Your task to perform on an android device: Open calendar and show me the fourth week of next month Image 0: 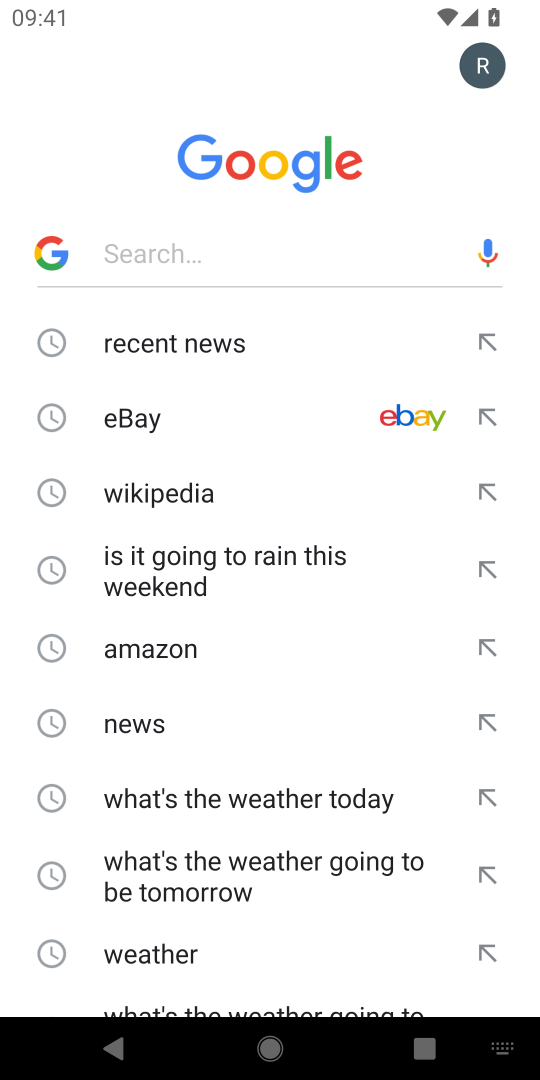
Step 0: press home button
Your task to perform on an android device: Open calendar and show me the fourth week of next month Image 1: 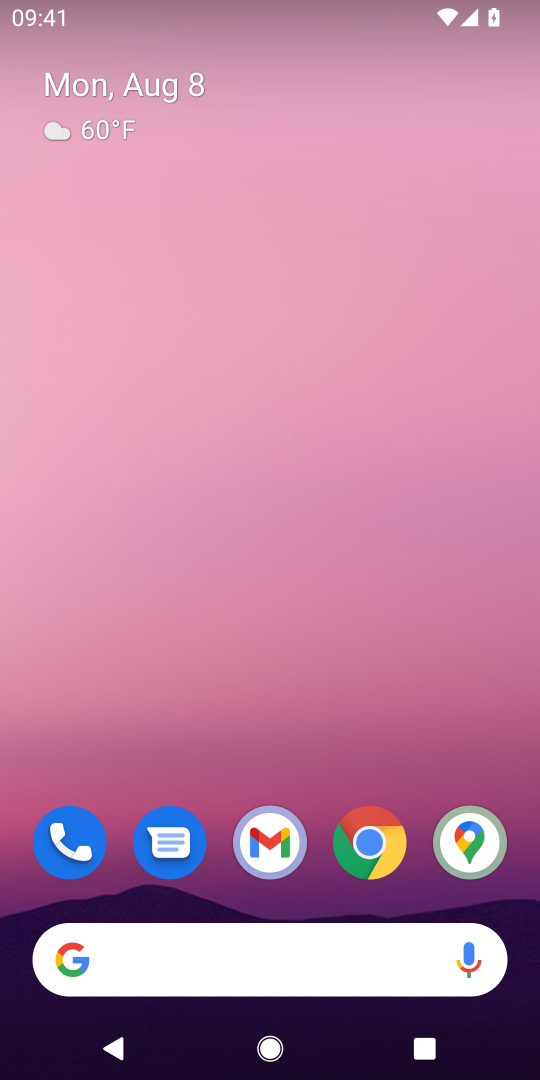
Step 1: drag from (310, 758) to (388, 27)
Your task to perform on an android device: Open calendar and show me the fourth week of next month Image 2: 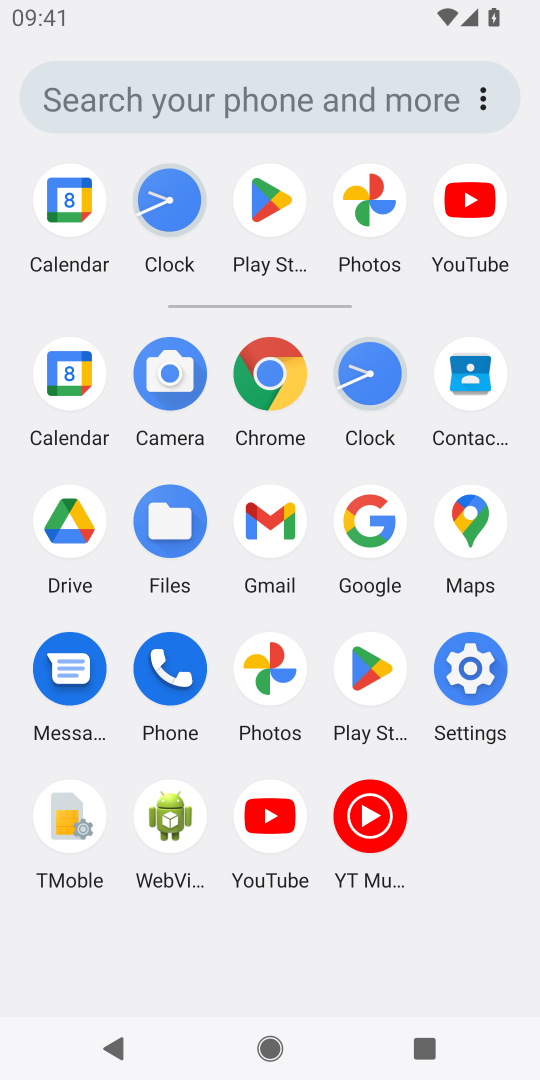
Step 2: click (69, 371)
Your task to perform on an android device: Open calendar and show me the fourth week of next month Image 3: 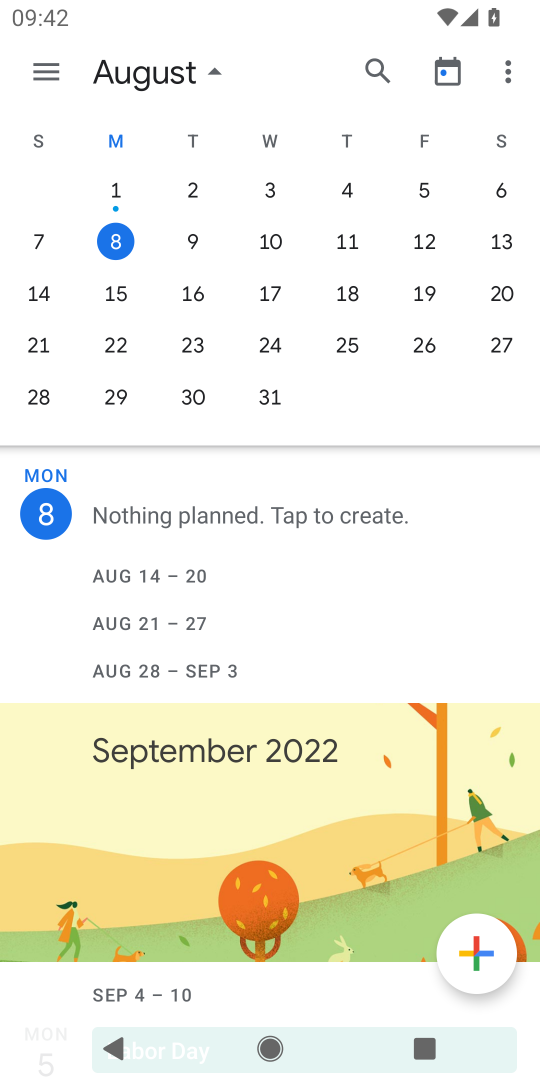
Step 3: drag from (523, 399) to (80, 472)
Your task to perform on an android device: Open calendar and show me the fourth week of next month Image 4: 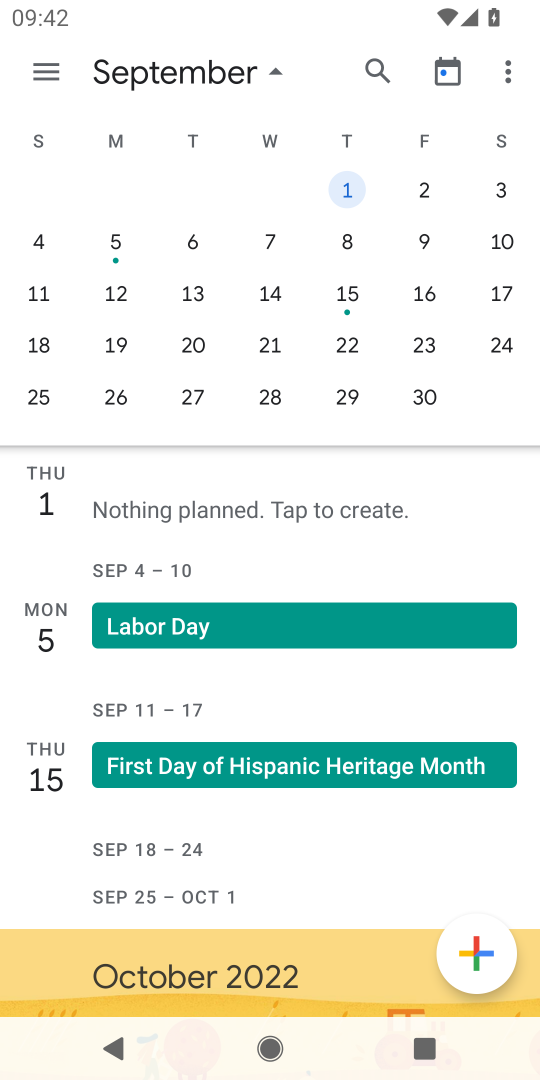
Step 4: click (36, 352)
Your task to perform on an android device: Open calendar and show me the fourth week of next month Image 5: 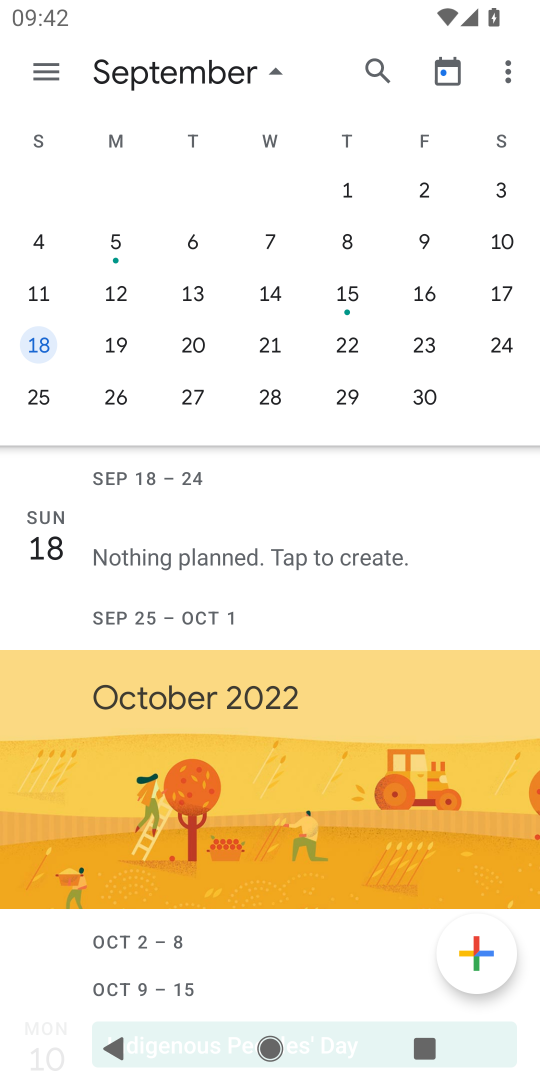
Step 5: task complete